Your task to perform on an android device: turn notification dots off Image 0: 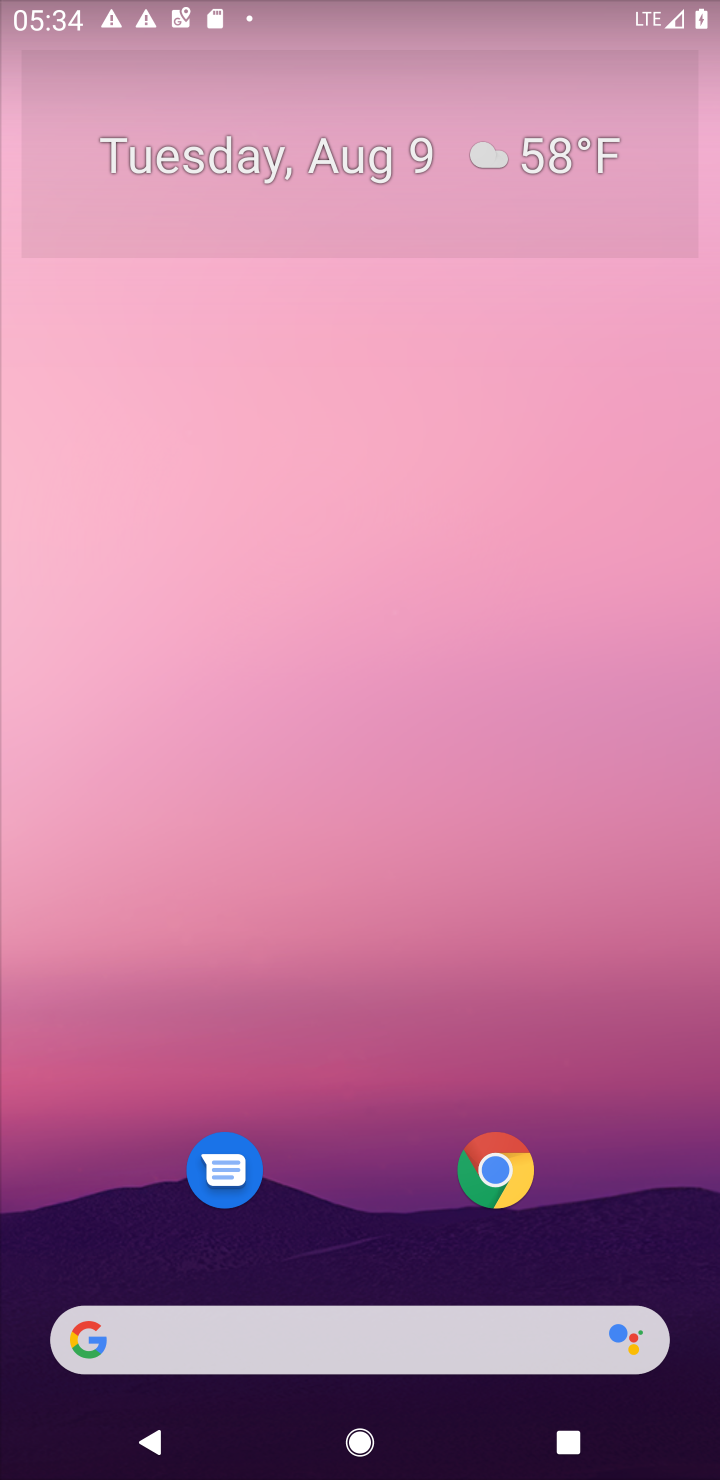
Step 0: press home button
Your task to perform on an android device: turn notification dots off Image 1: 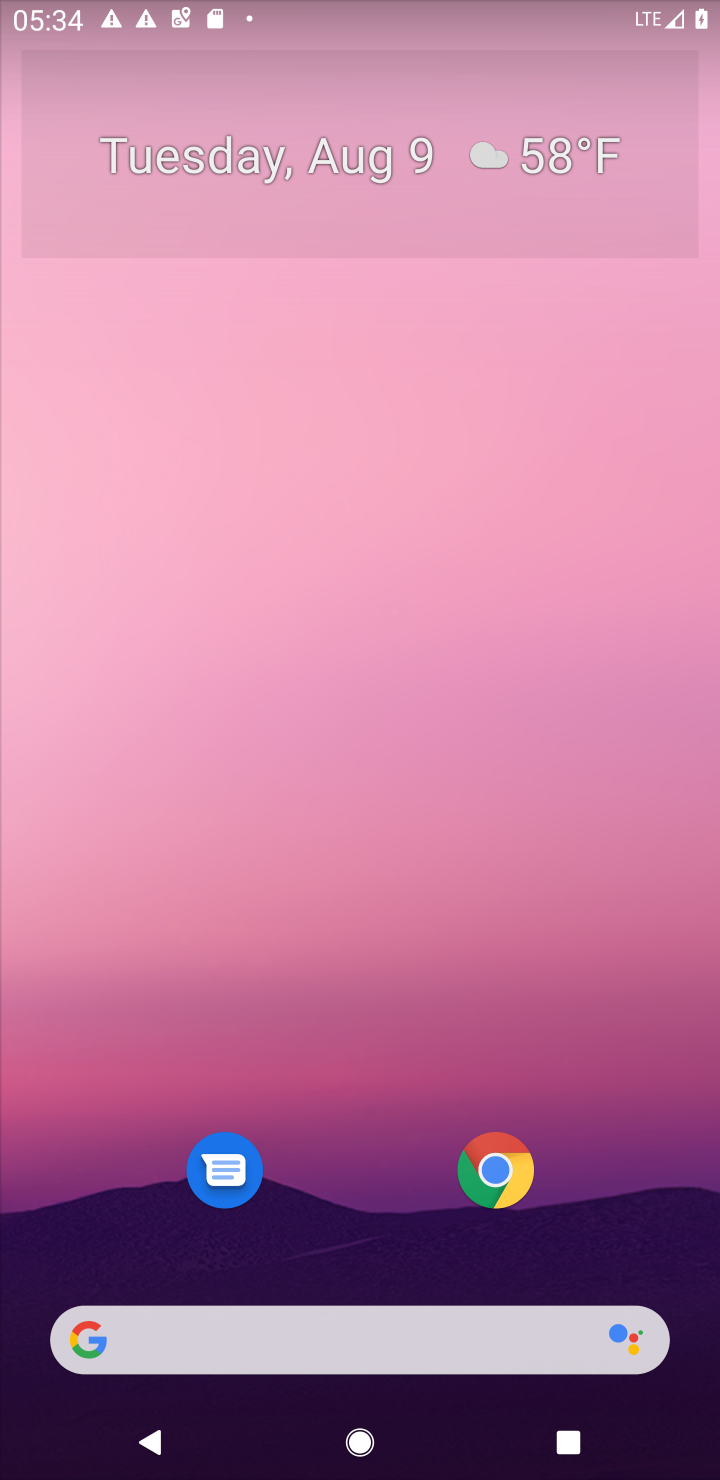
Step 1: drag from (373, 1268) to (390, 33)
Your task to perform on an android device: turn notification dots off Image 2: 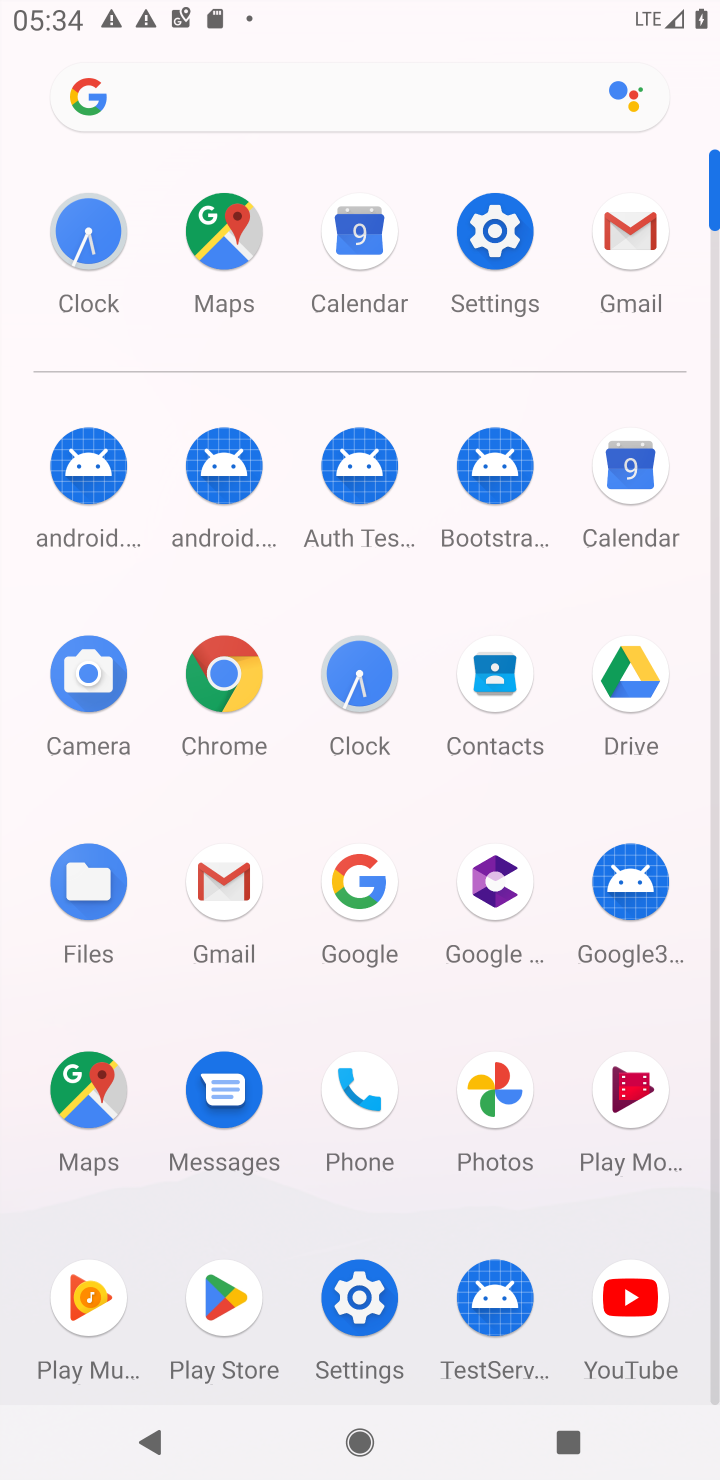
Step 2: click (499, 208)
Your task to perform on an android device: turn notification dots off Image 3: 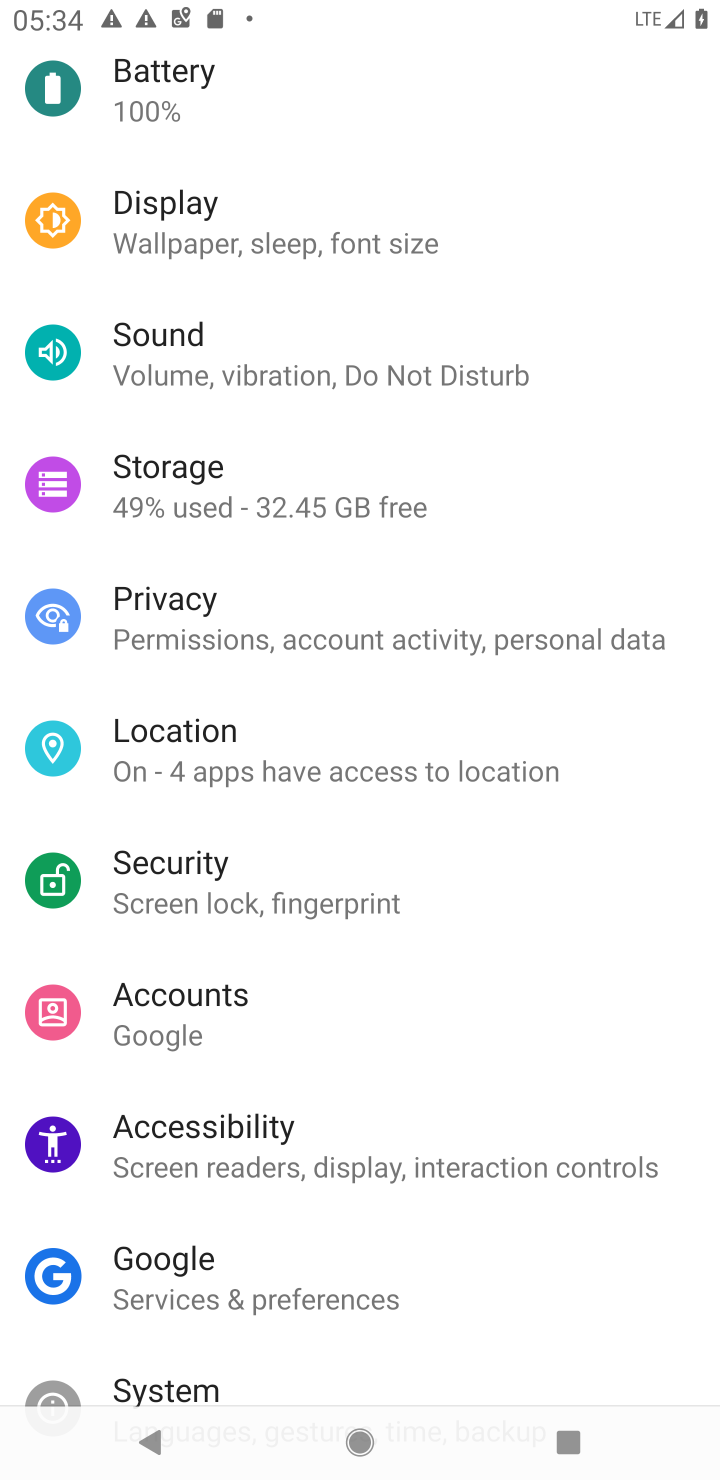
Step 3: drag from (481, 149) to (699, 1359)
Your task to perform on an android device: turn notification dots off Image 4: 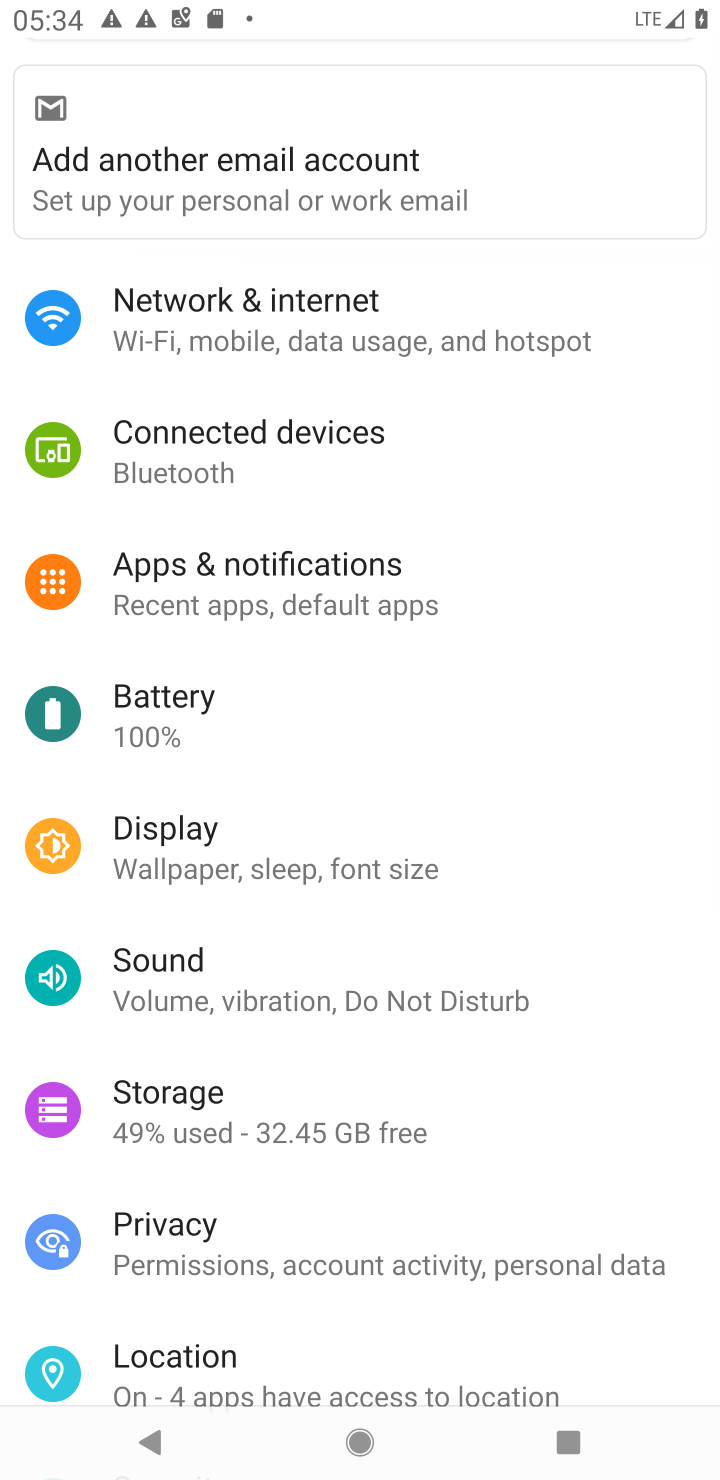
Step 4: drag from (476, 481) to (390, 1308)
Your task to perform on an android device: turn notification dots off Image 5: 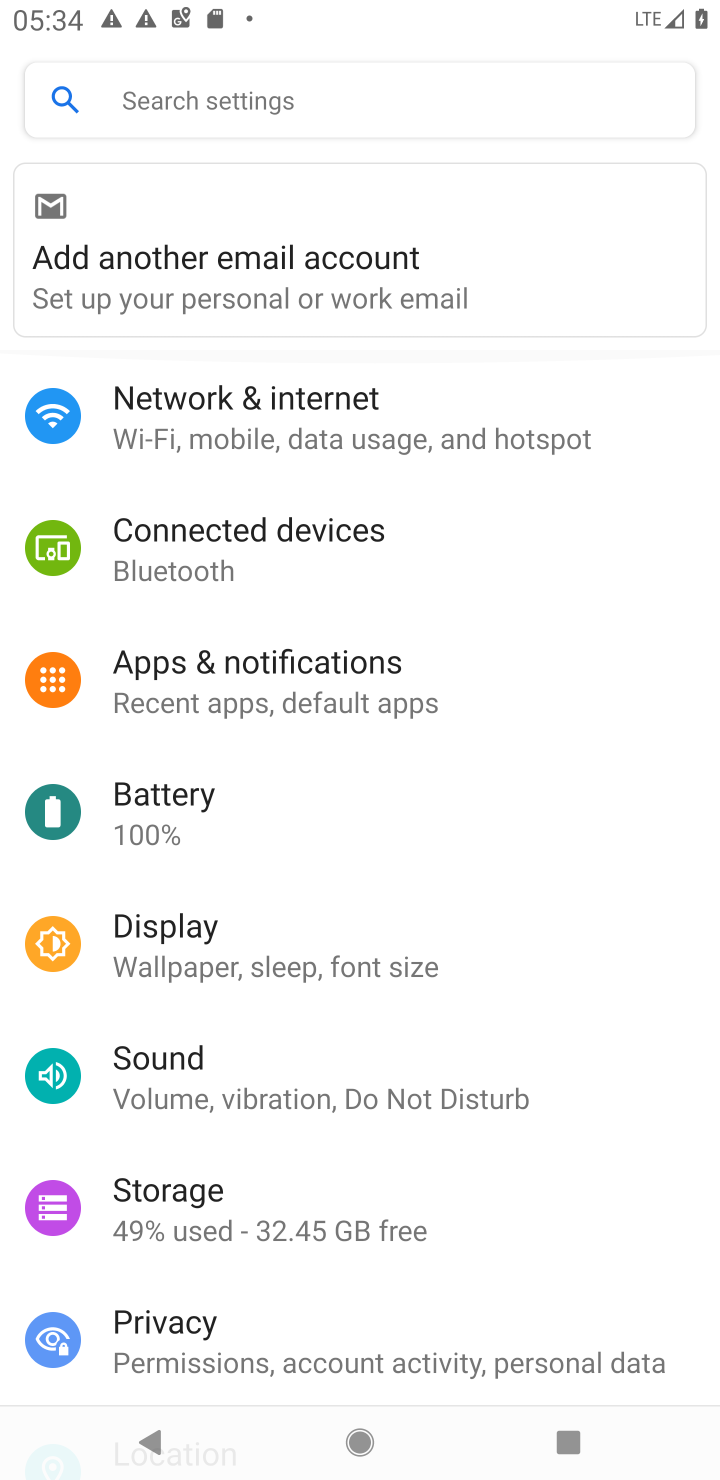
Step 5: drag from (226, 593) to (224, 696)
Your task to perform on an android device: turn notification dots off Image 6: 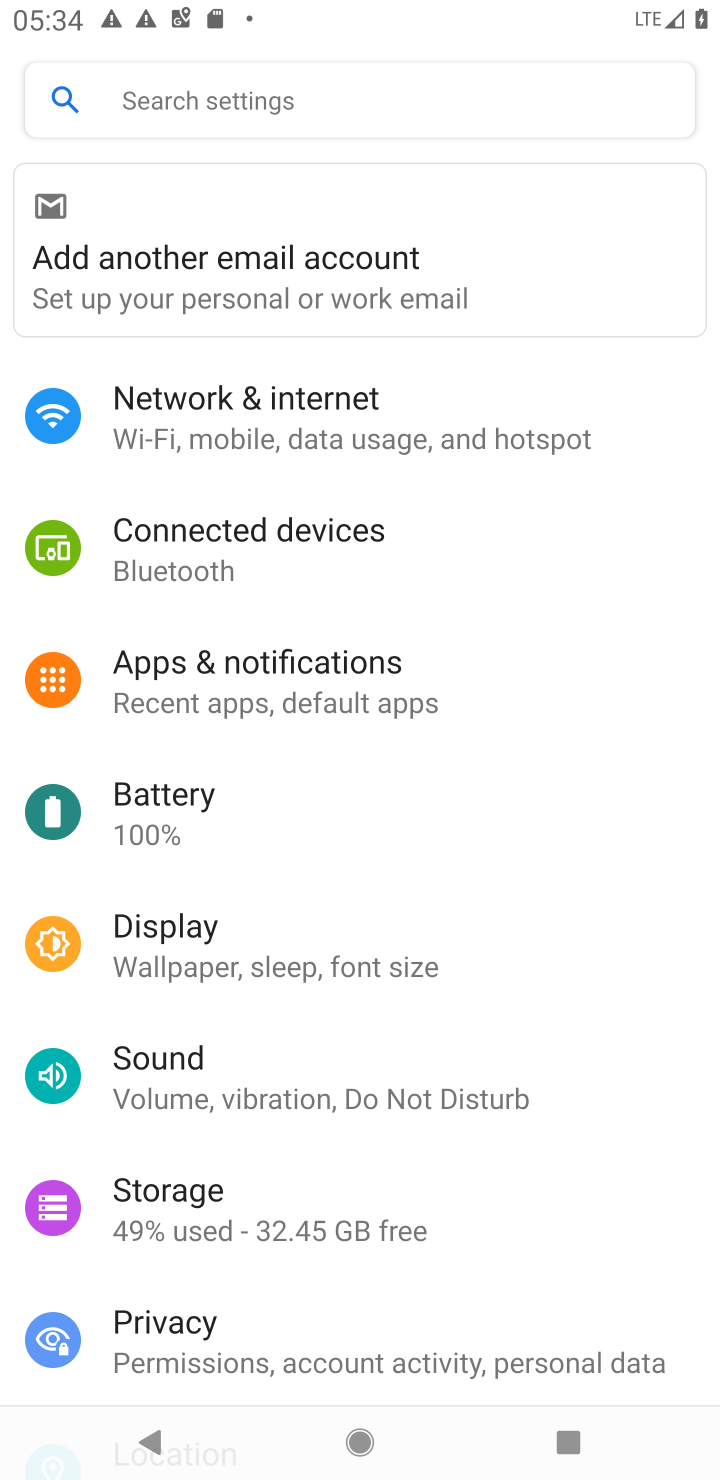
Step 6: click (266, 692)
Your task to perform on an android device: turn notification dots off Image 7: 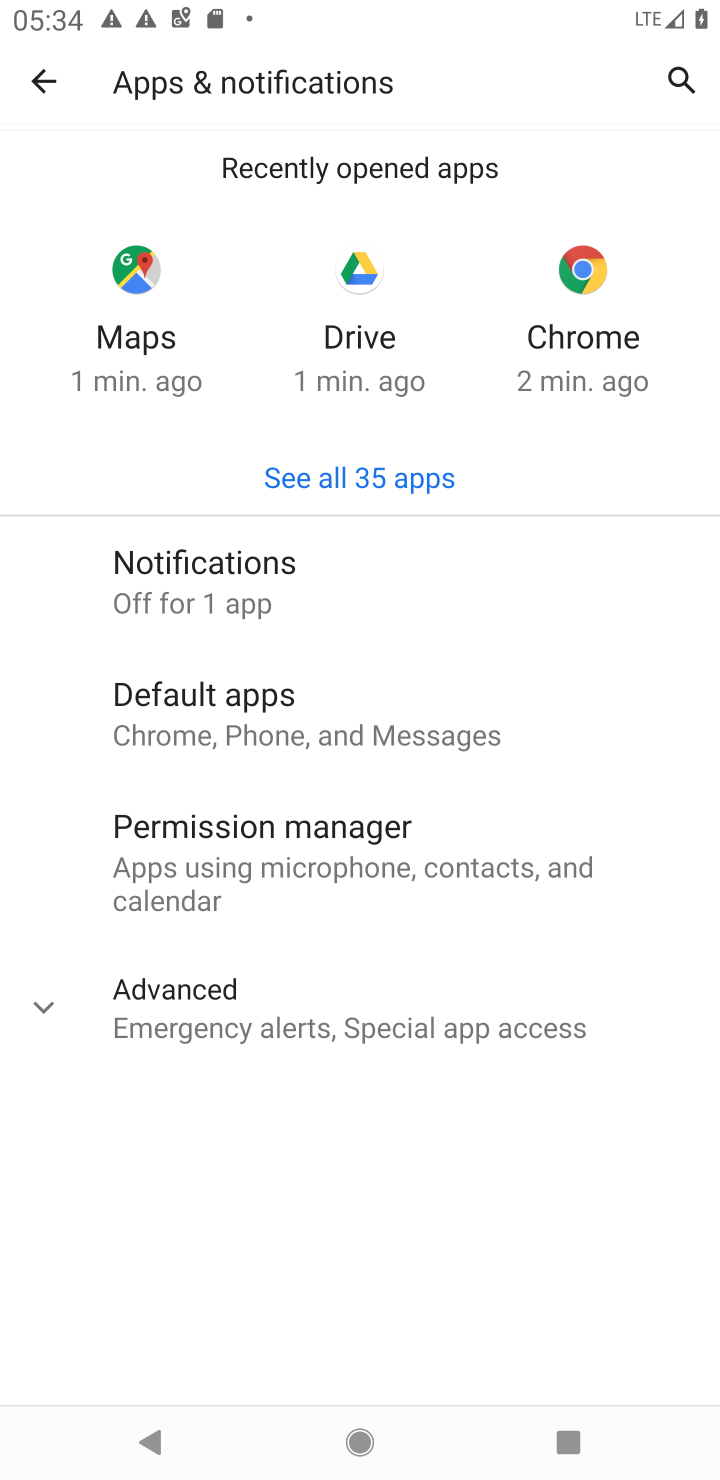
Step 7: click (183, 579)
Your task to perform on an android device: turn notification dots off Image 8: 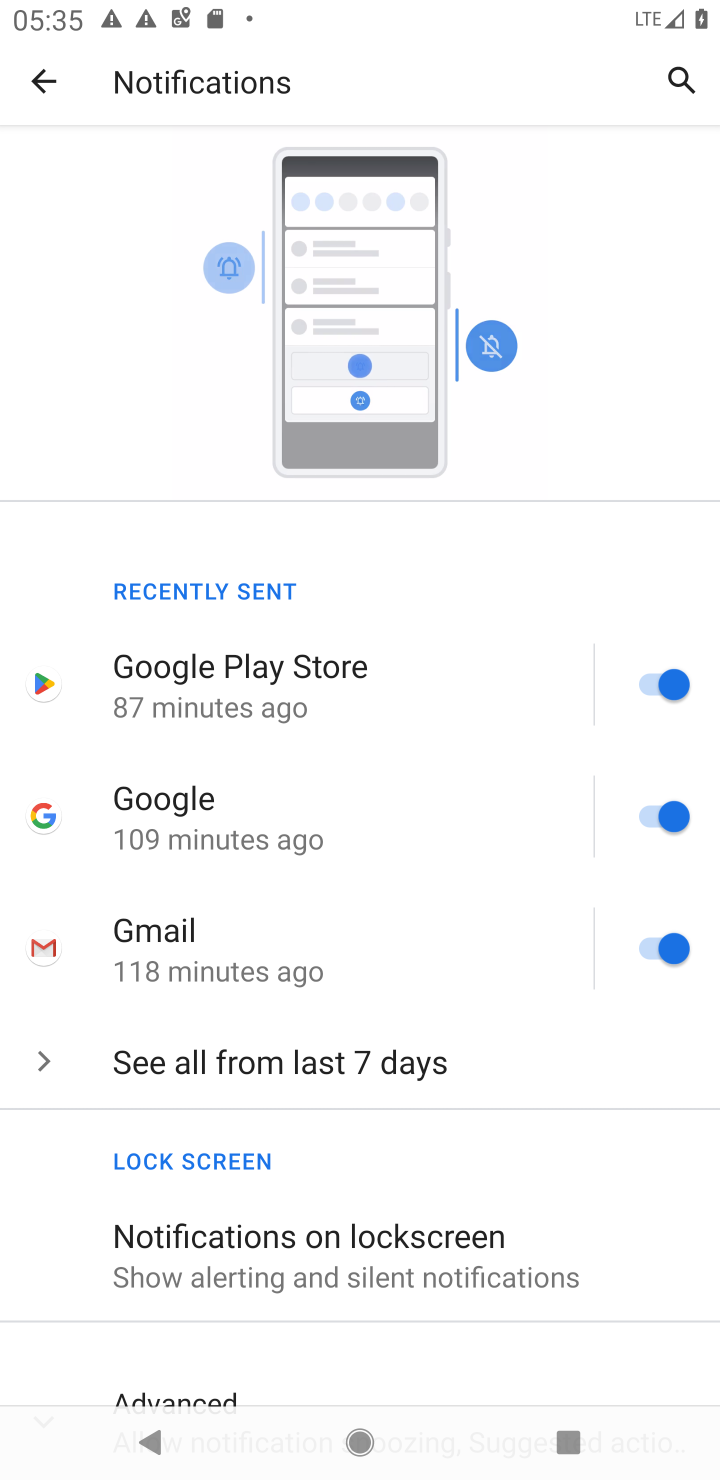
Step 8: drag from (635, 693) to (509, 62)
Your task to perform on an android device: turn notification dots off Image 9: 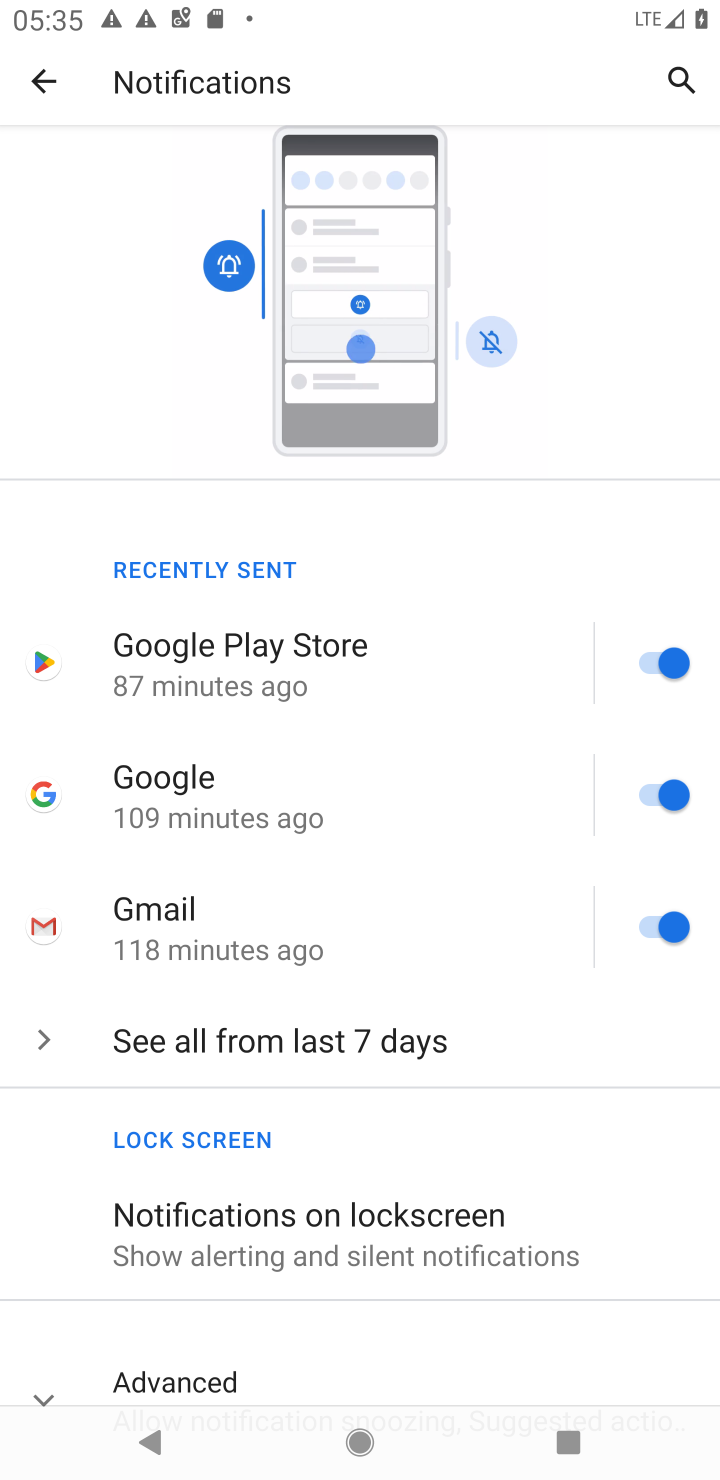
Step 9: click (224, 1397)
Your task to perform on an android device: turn notification dots off Image 10: 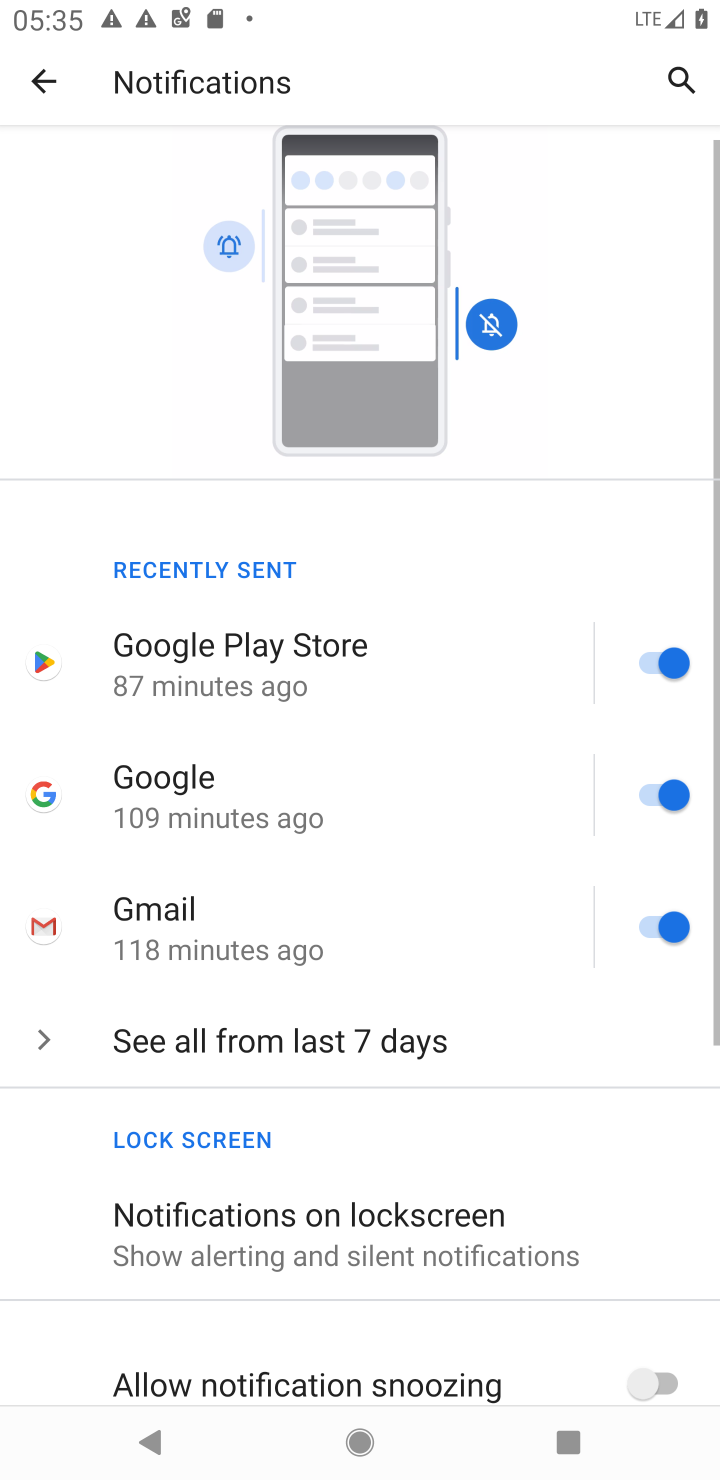
Step 10: drag from (451, 1294) to (450, 8)
Your task to perform on an android device: turn notification dots off Image 11: 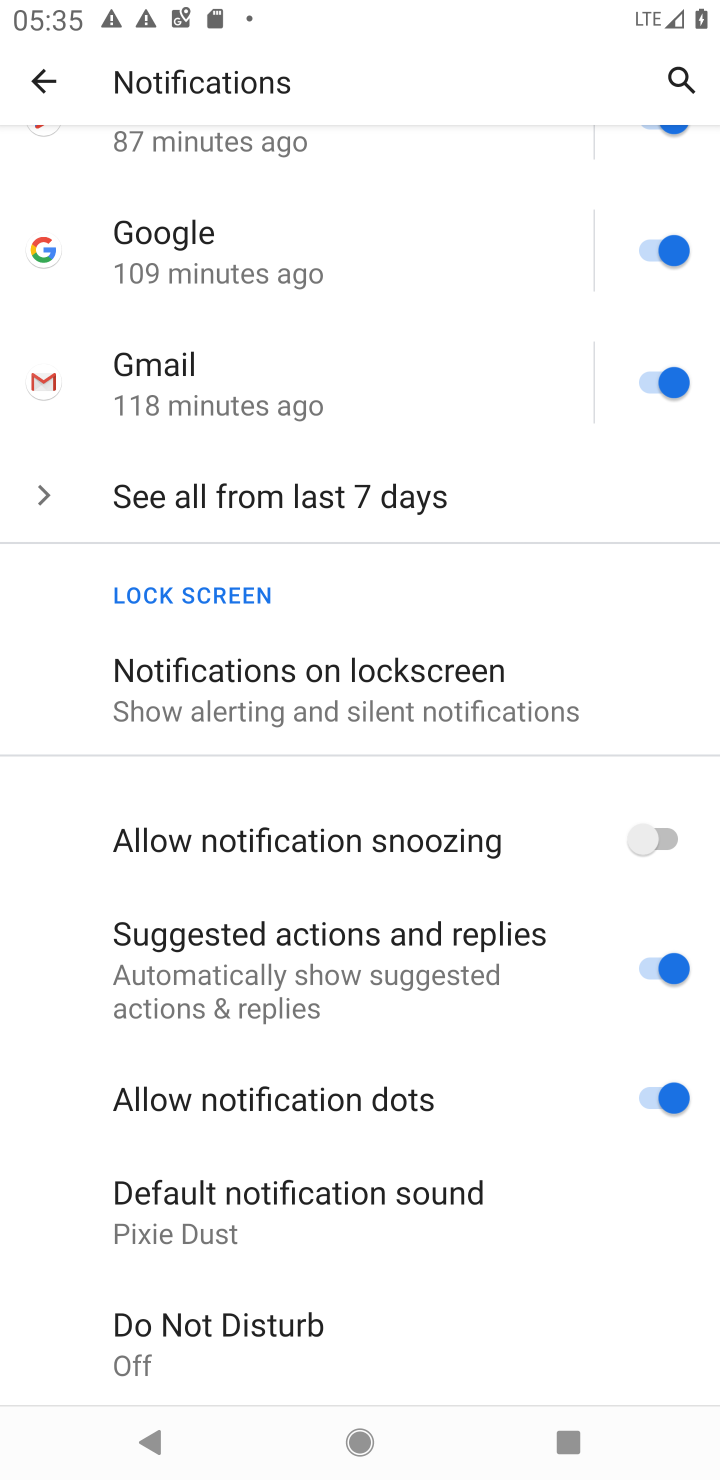
Step 11: click (681, 1110)
Your task to perform on an android device: turn notification dots off Image 12: 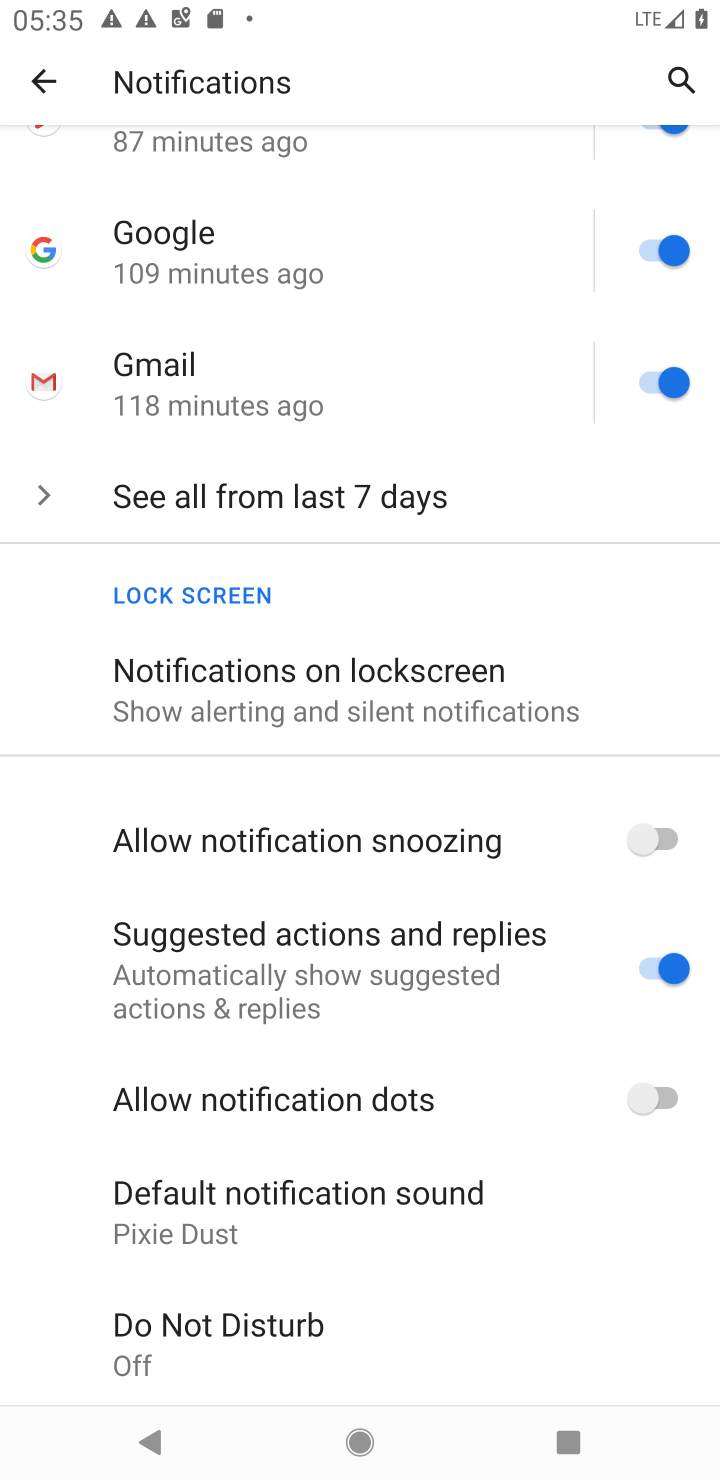
Step 12: task complete